Your task to perform on an android device: Search for the best selling phone on AliExpress Image 0: 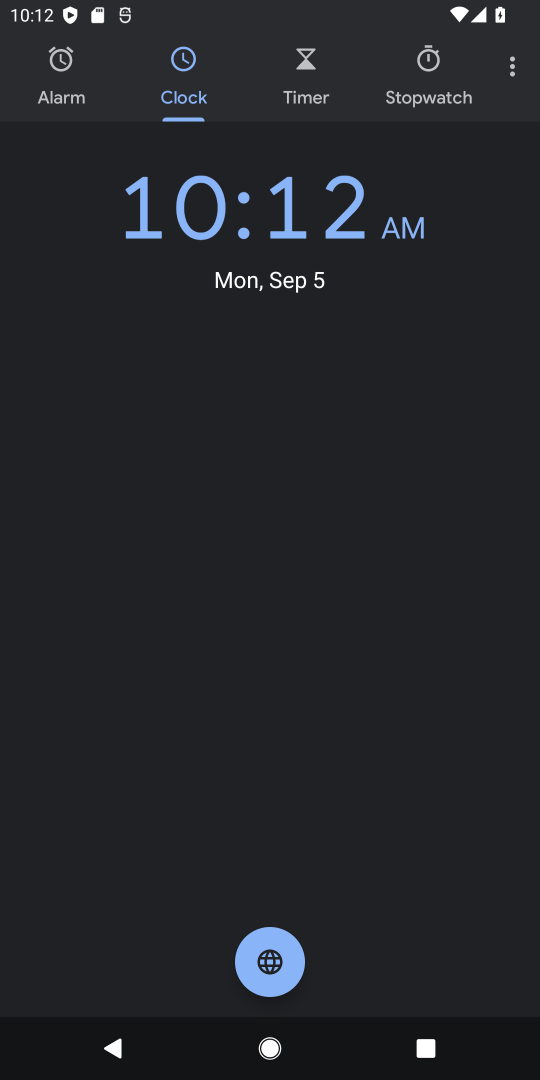
Step 0: press home button
Your task to perform on an android device: Search for the best selling phone on AliExpress Image 1: 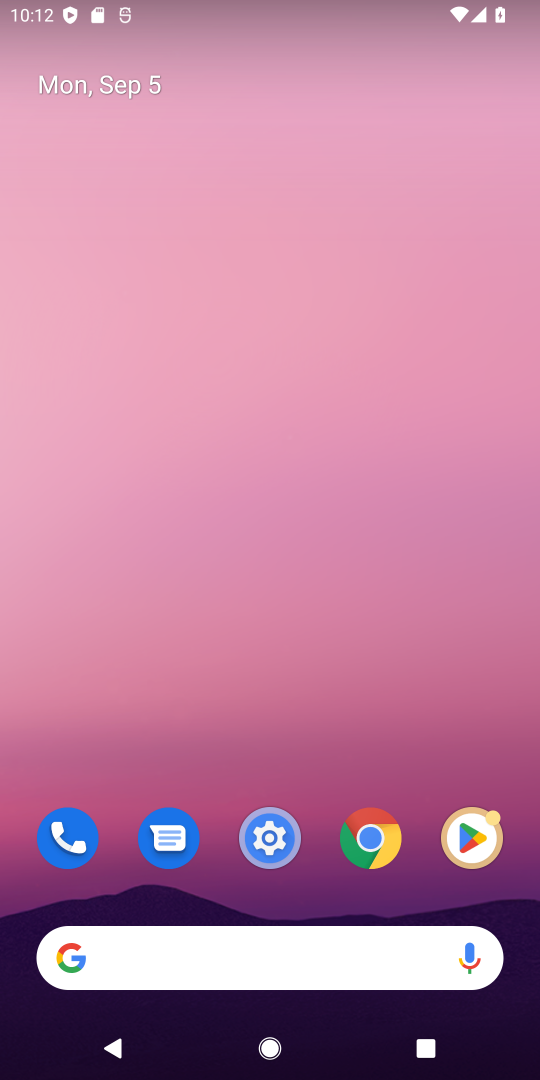
Step 1: click (348, 961)
Your task to perform on an android device: Search for the best selling phone on AliExpress Image 2: 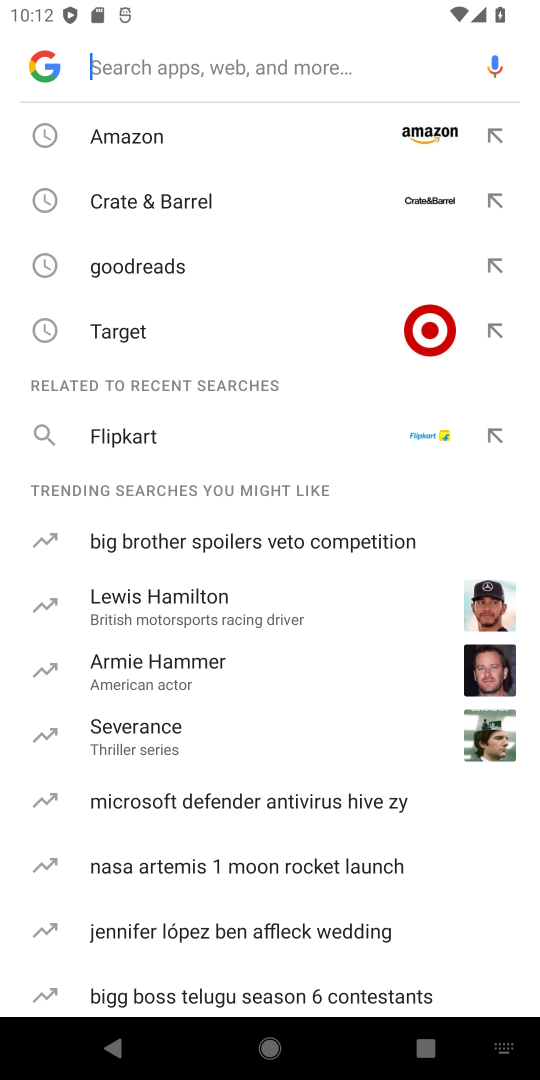
Step 2: type "AliExpress"
Your task to perform on an android device: Search for the best selling phone on AliExpress Image 3: 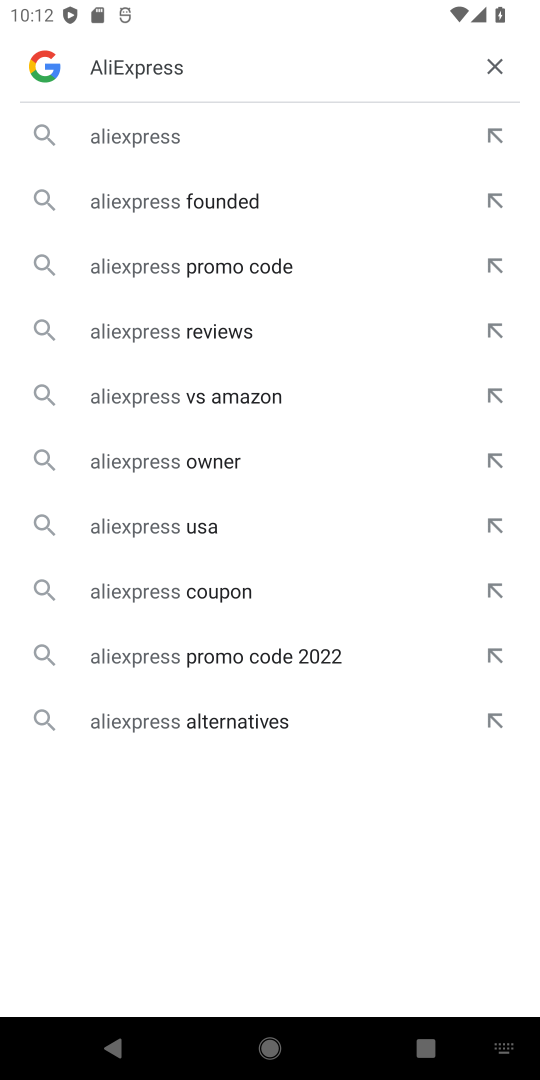
Step 3: click (203, 153)
Your task to perform on an android device: Search for the best selling phone on AliExpress Image 4: 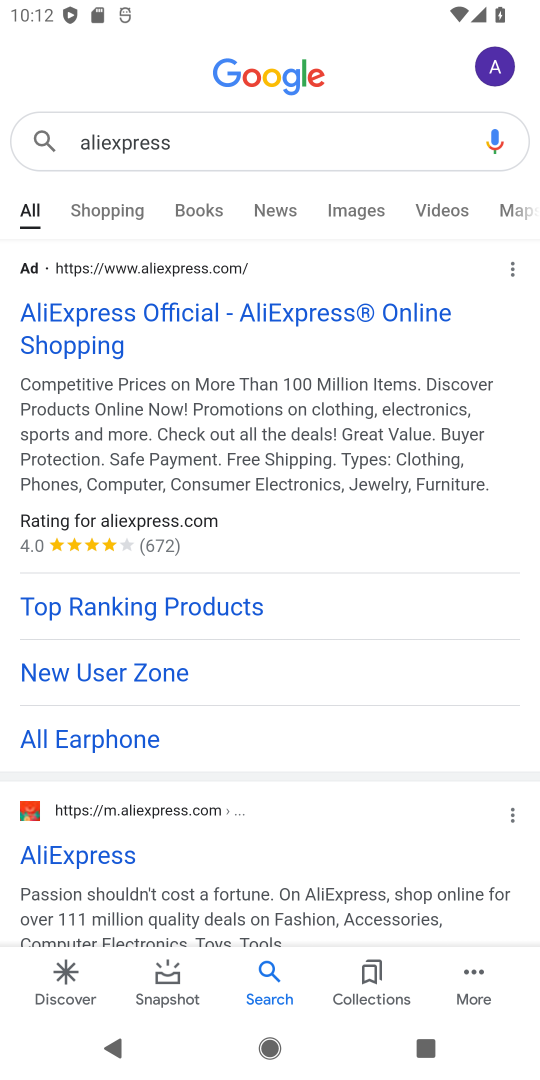
Step 4: drag from (277, 712) to (342, 386)
Your task to perform on an android device: Search for the best selling phone on AliExpress Image 5: 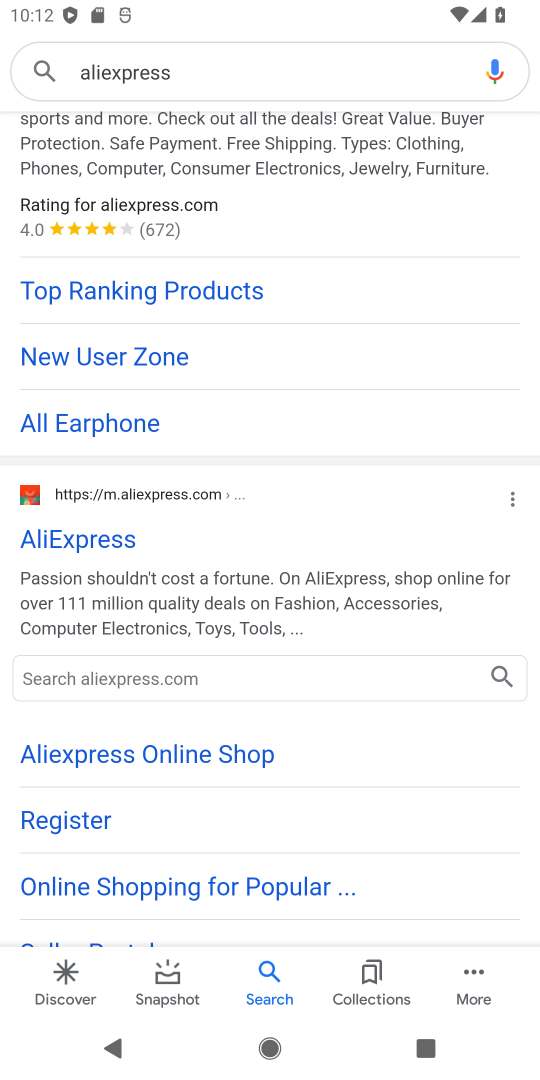
Step 5: click (93, 537)
Your task to perform on an android device: Search for the best selling phone on AliExpress Image 6: 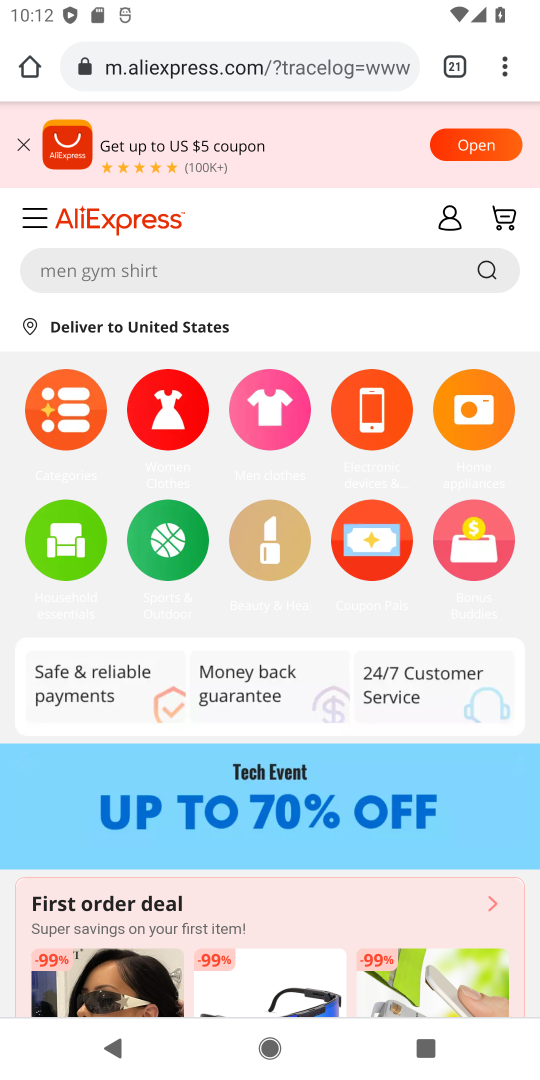
Step 6: click (289, 253)
Your task to perform on an android device: Search for the best selling phone on AliExpress Image 7: 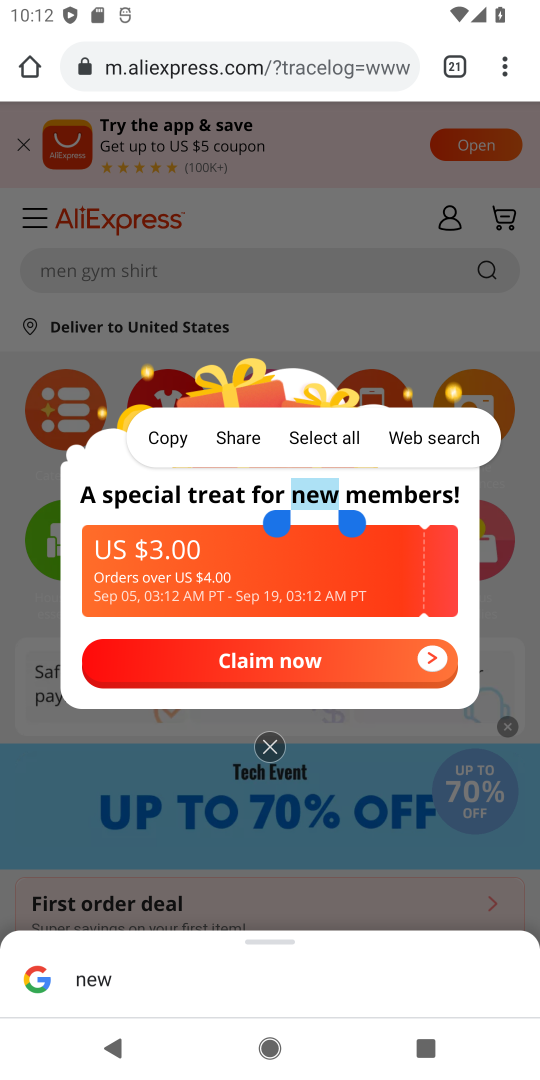
Step 7: click (272, 742)
Your task to perform on an android device: Search for the best selling phone on AliExpress Image 8: 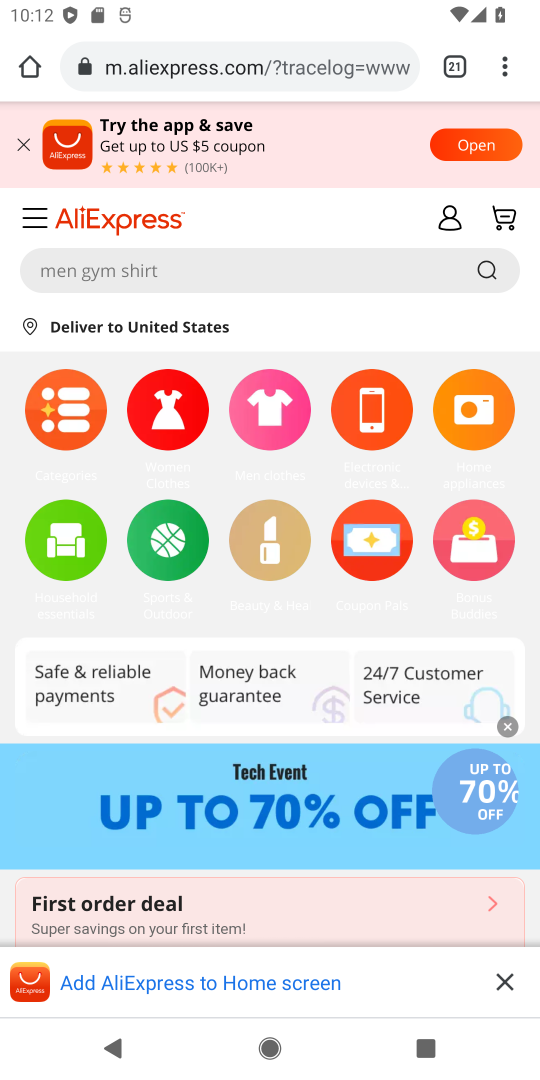
Step 8: click (213, 272)
Your task to perform on an android device: Search for the best selling phone on AliExpress Image 9: 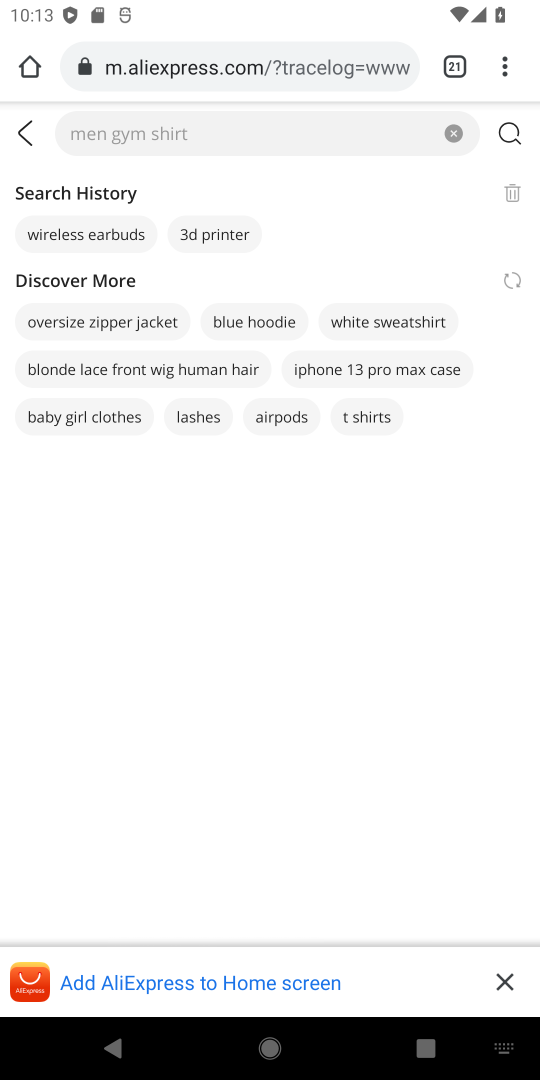
Step 9: type "best selling phone"
Your task to perform on an android device: Search for the best selling phone on AliExpress Image 10: 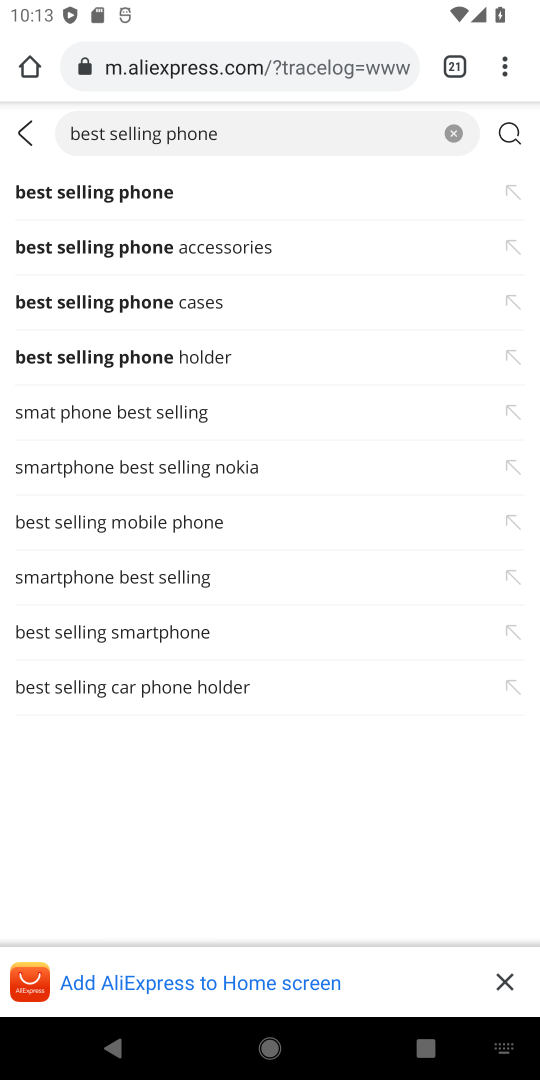
Step 10: click (271, 179)
Your task to perform on an android device: Search for the best selling phone on AliExpress Image 11: 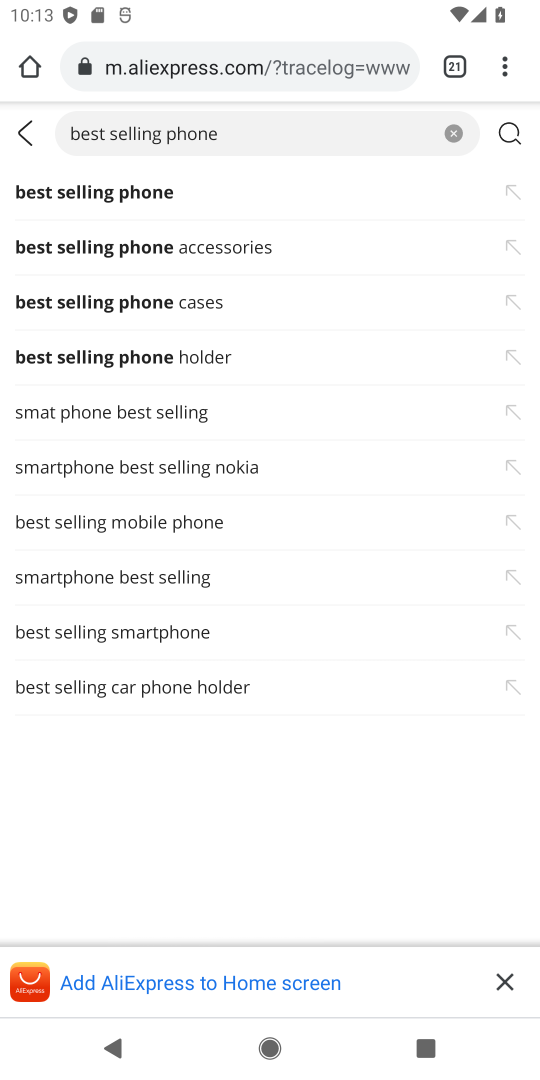
Step 11: click (109, 196)
Your task to perform on an android device: Search for the best selling phone on AliExpress Image 12: 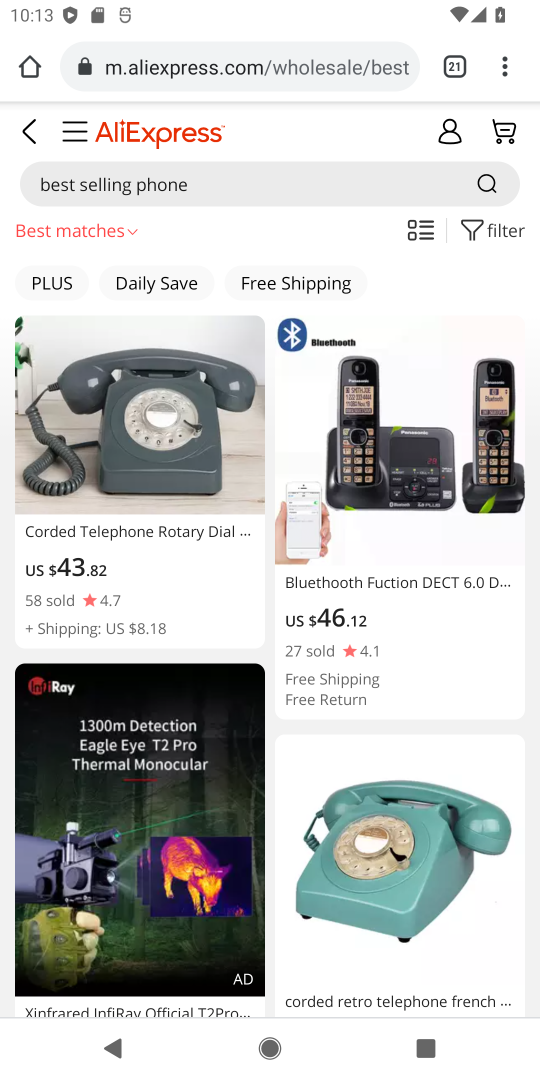
Step 12: task complete